Your task to perform on an android device: When is my next appointment? Image 0: 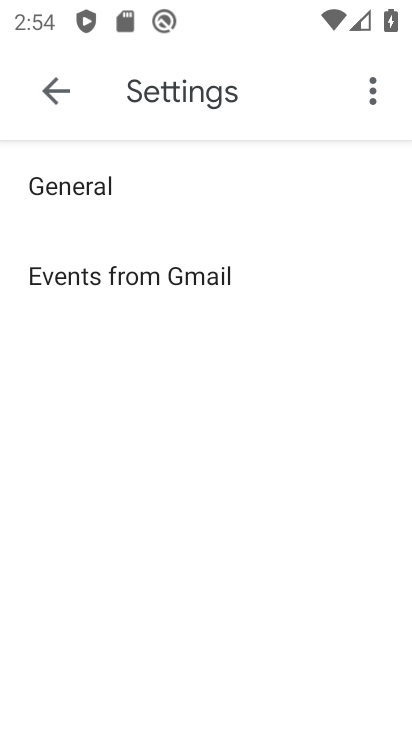
Step 0: press home button
Your task to perform on an android device: When is my next appointment? Image 1: 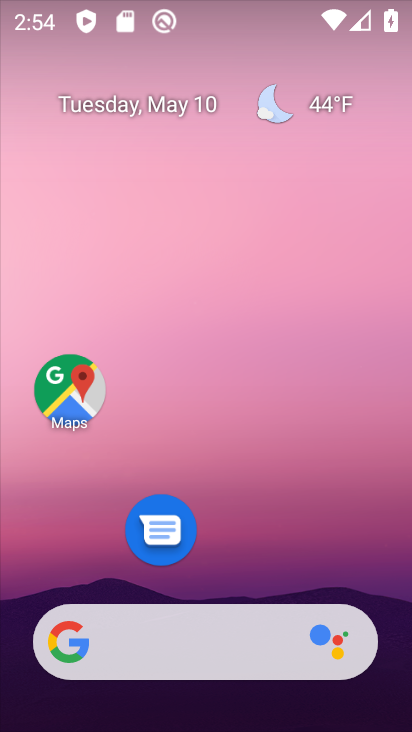
Step 1: drag from (253, 551) to (249, 95)
Your task to perform on an android device: When is my next appointment? Image 2: 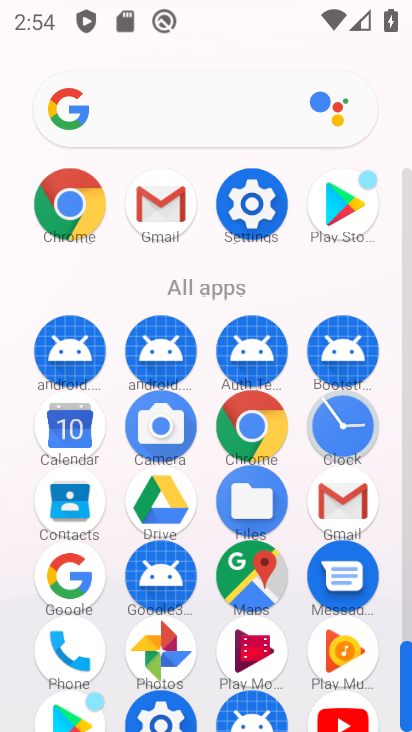
Step 2: click (68, 432)
Your task to perform on an android device: When is my next appointment? Image 3: 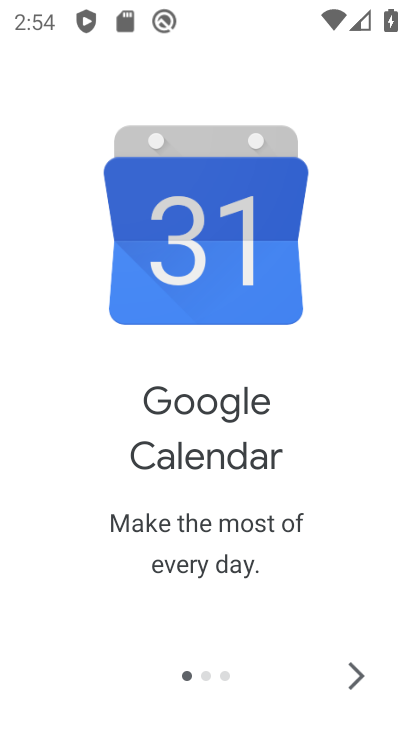
Step 3: click (353, 683)
Your task to perform on an android device: When is my next appointment? Image 4: 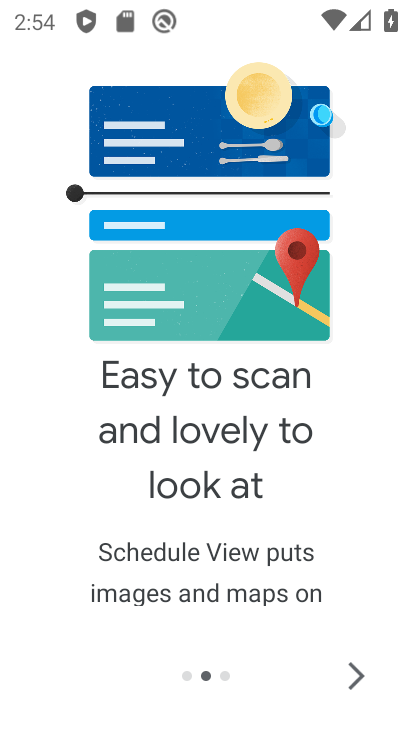
Step 4: click (353, 683)
Your task to perform on an android device: When is my next appointment? Image 5: 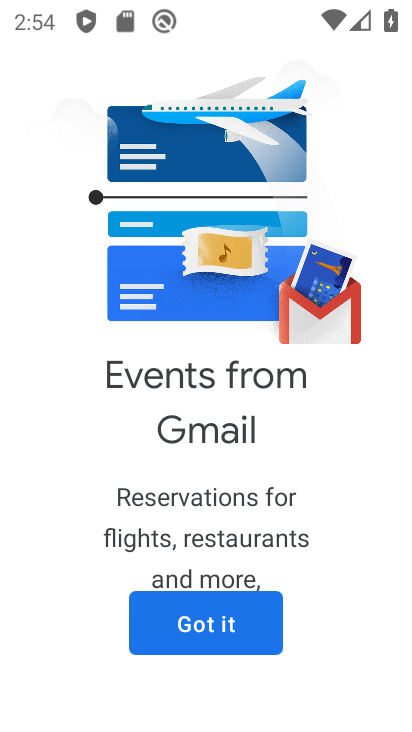
Step 5: drag from (353, 683) to (124, 672)
Your task to perform on an android device: When is my next appointment? Image 6: 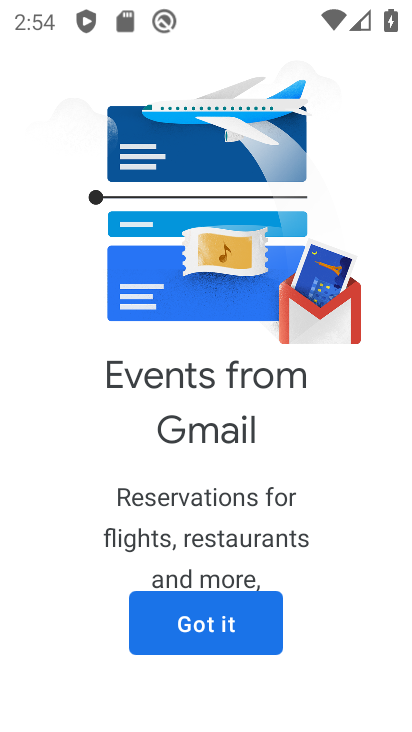
Step 6: click (190, 645)
Your task to perform on an android device: When is my next appointment? Image 7: 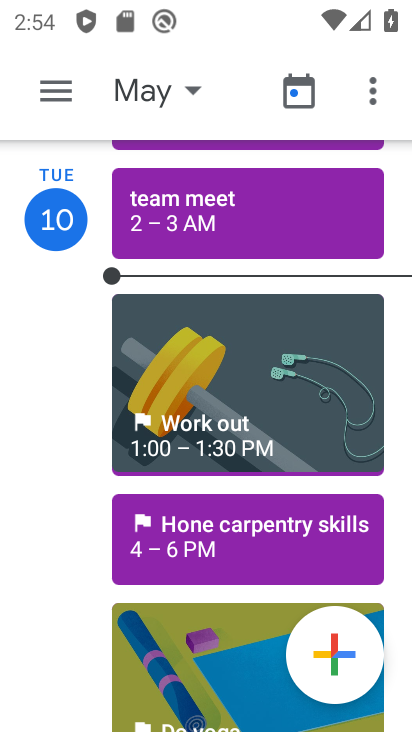
Step 7: click (168, 101)
Your task to perform on an android device: When is my next appointment? Image 8: 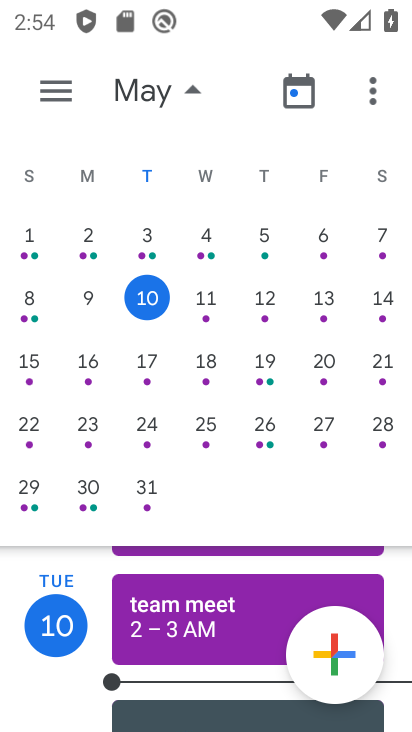
Step 8: click (193, 307)
Your task to perform on an android device: When is my next appointment? Image 9: 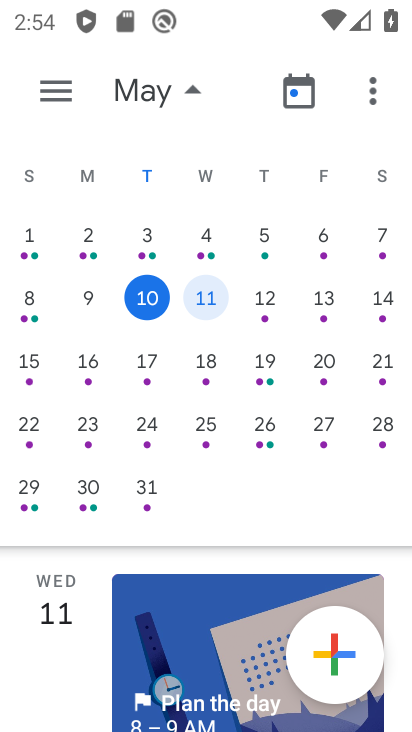
Step 9: task complete